Your task to perform on an android device: turn on priority inbox in the gmail app Image 0: 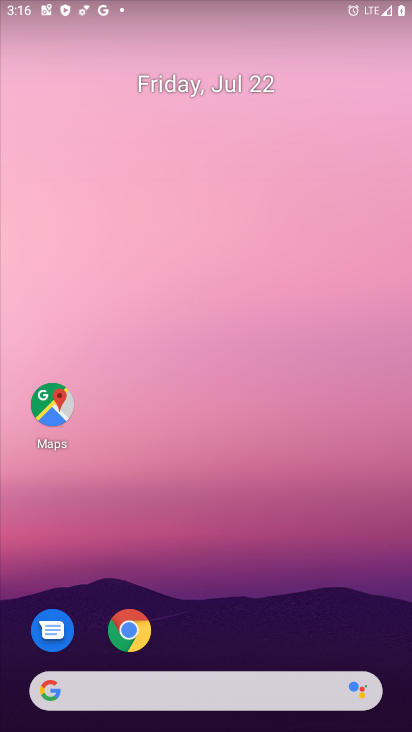
Step 0: drag from (204, 671) to (244, 132)
Your task to perform on an android device: turn on priority inbox in the gmail app Image 1: 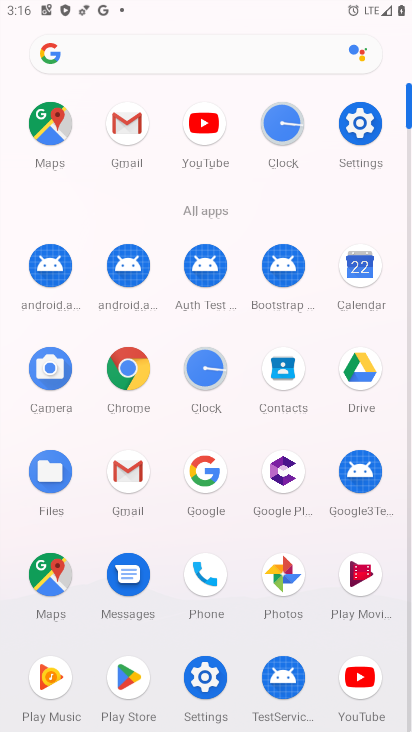
Step 1: click (133, 486)
Your task to perform on an android device: turn on priority inbox in the gmail app Image 2: 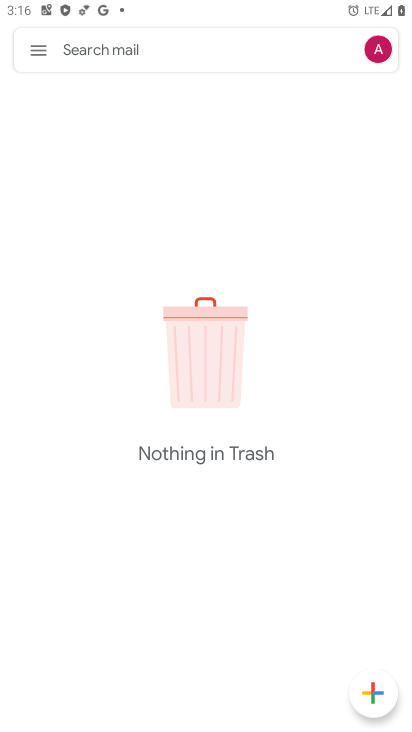
Step 2: click (32, 39)
Your task to perform on an android device: turn on priority inbox in the gmail app Image 3: 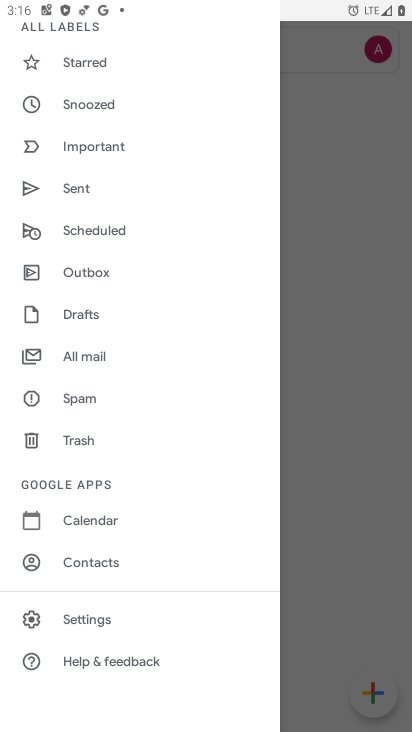
Step 3: click (100, 624)
Your task to perform on an android device: turn on priority inbox in the gmail app Image 4: 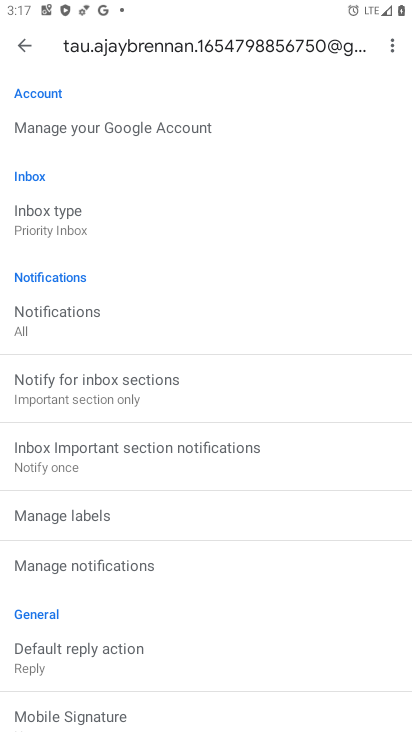
Step 4: click (71, 232)
Your task to perform on an android device: turn on priority inbox in the gmail app Image 5: 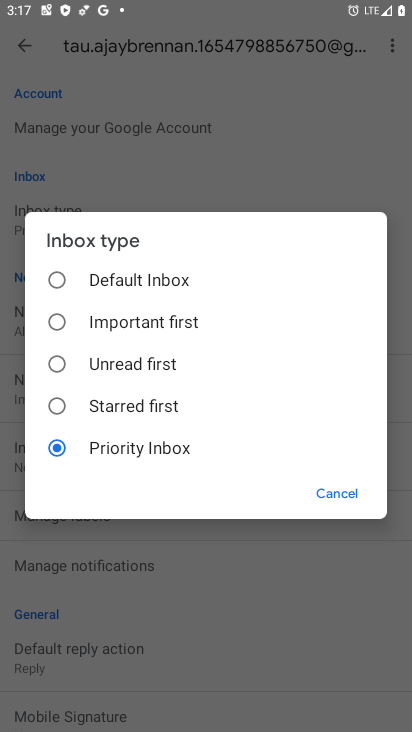
Step 5: click (131, 449)
Your task to perform on an android device: turn on priority inbox in the gmail app Image 6: 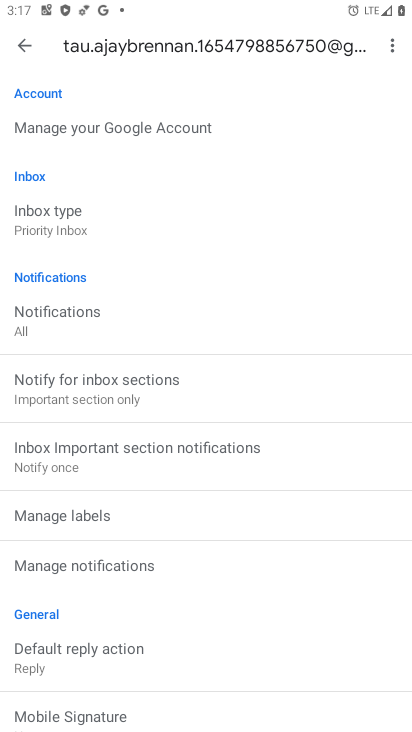
Step 6: task complete